Your task to perform on an android device: see sites visited before in the chrome app Image 0: 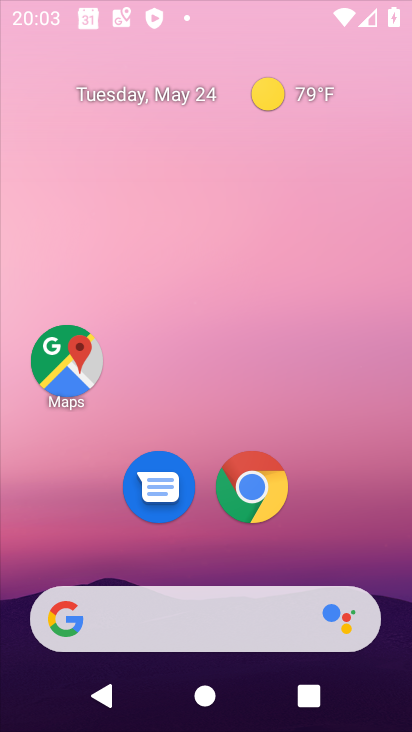
Step 0: press home button
Your task to perform on an android device: see sites visited before in the chrome app Image 1: 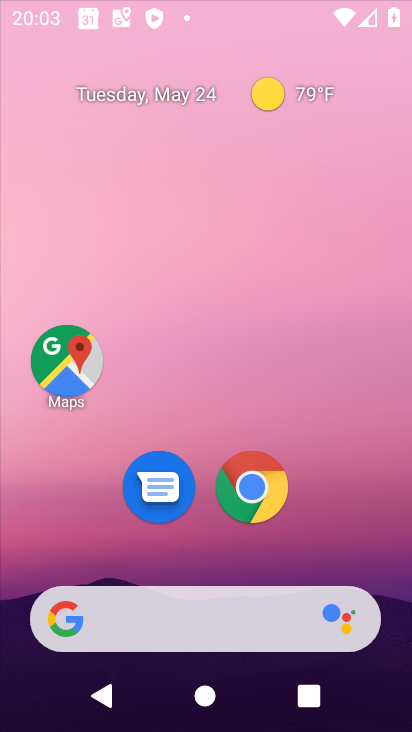
Step 1: click (231, 159)
Your task to perform on an android device: see sites visited before in the chrome app Image 2: 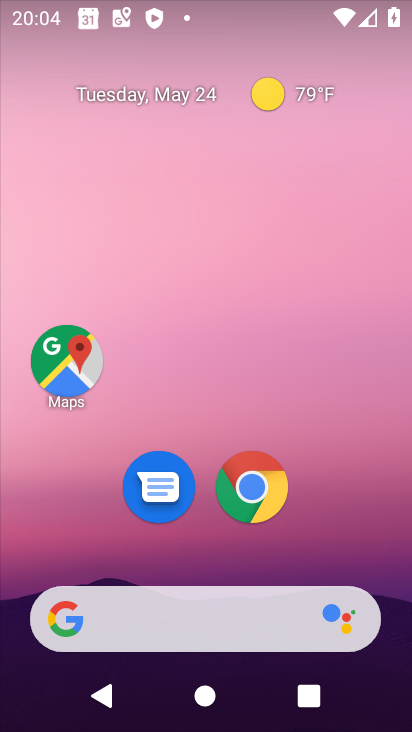
Step 2: drag from (22, 559) to (258, 183)
Your task to perform on an android device: see sites visited before in the chrome app Image 3: 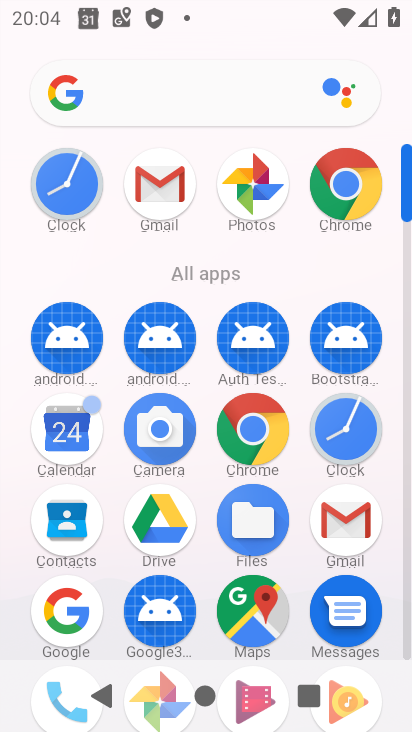
Step 3: click (245, 421)
Your task to perform on an android device: see sites visited before in the chrome app Image 4: 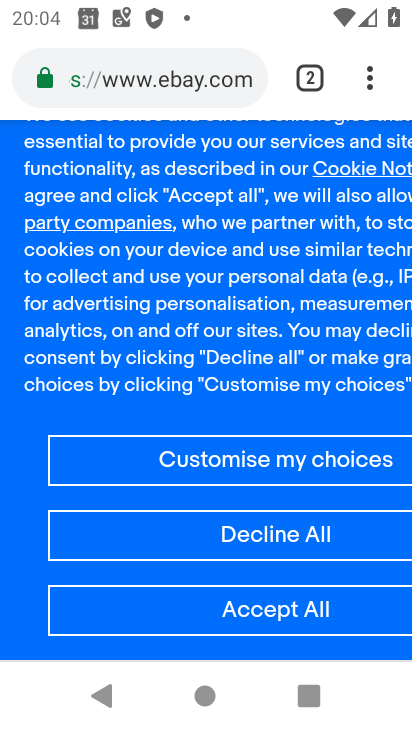
Step 4: click (374, 74)
Your task to perform on an android device: see sites visited before in the chrome app Image 5: 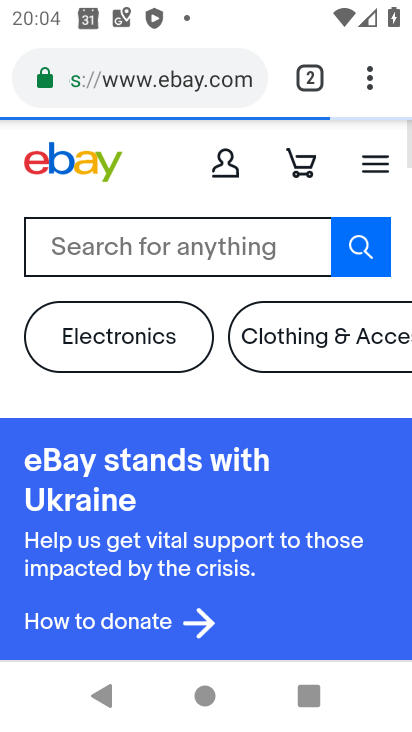
Step 5: click (360, 85)
Your task to perform on an android device: see sites visited before in the chrome app Image 6: 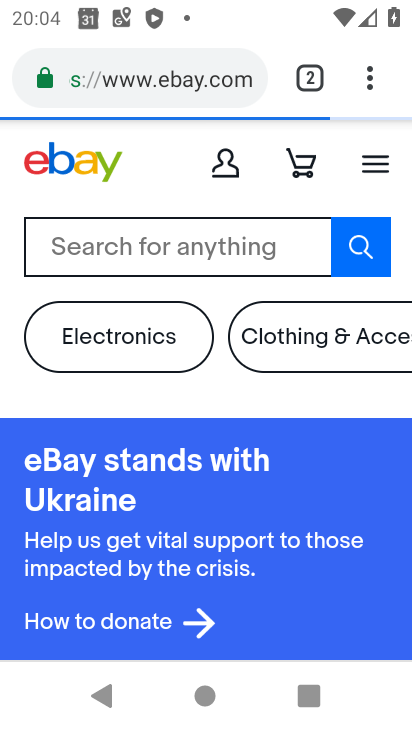
Step 6: click (377, 79)
Your task to perform on an android device: see sites visited before in the chrome app Image 7: 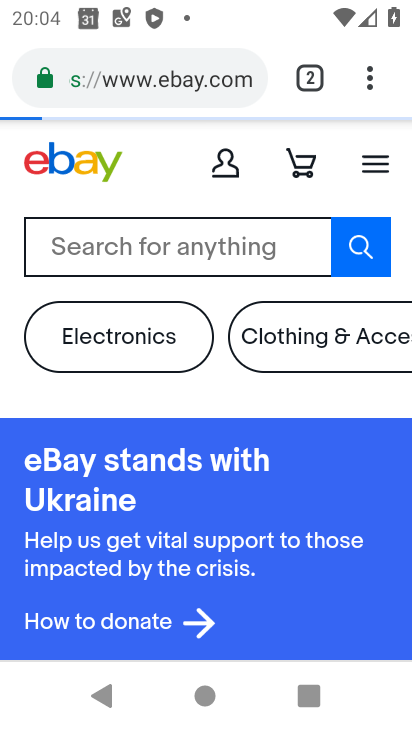
Step 7: click (376, 79)
Your task to perform on an android device: see sites visited before in the chrome app Image 8: 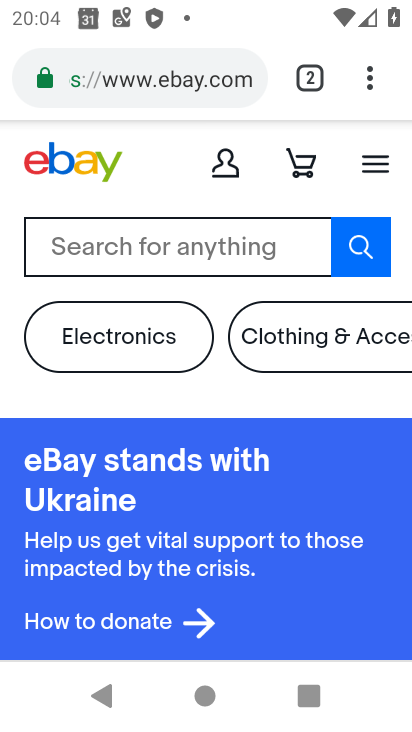
Step 8: click (368, 77)
Your task to perform on an android device: see sites visited before in the chrome app Image 9: 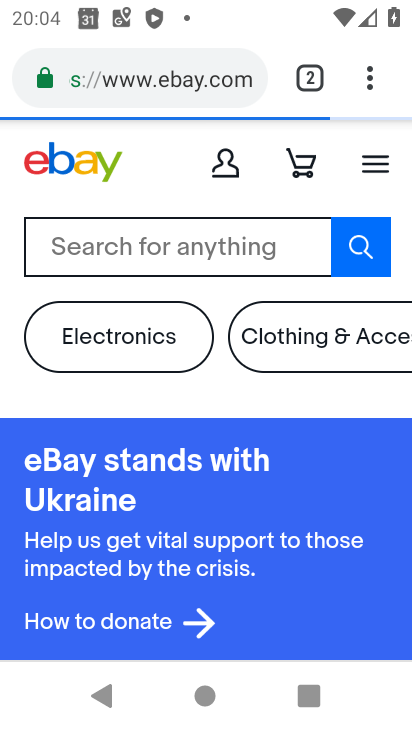
Step 9: click (379, 70)
Your task to perform on an android device: see sites visited before in the chrome app Image 10: 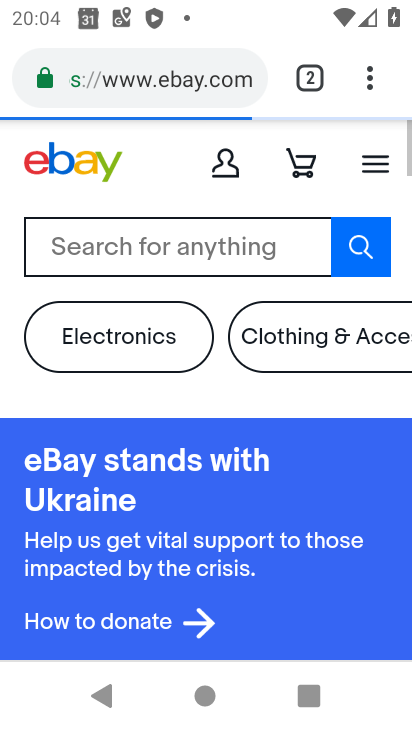
Step 10: click (370, 86)
Your task to perform on an android device: see sites visited before in the chrome app Image 11: 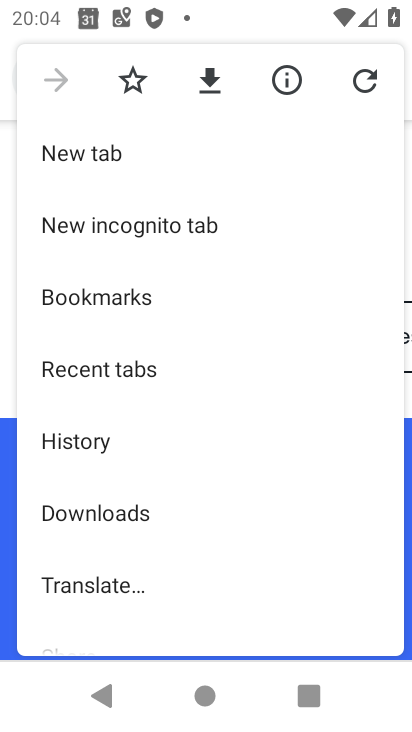
Step 11: click (118, 432)
Your task to perform on an android device: see sites visited before in the chrome app Image 12: 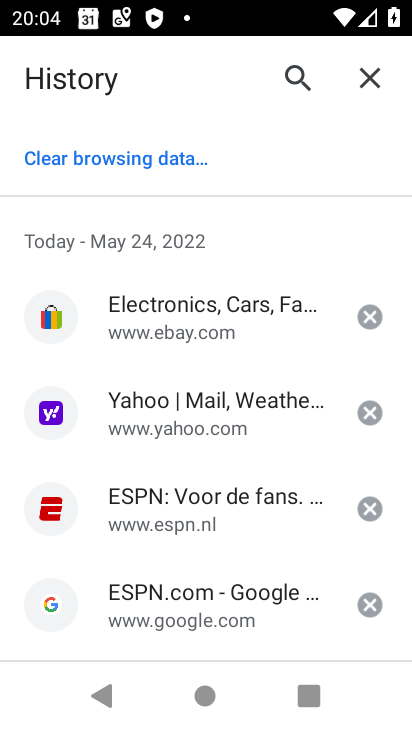
Step 12: task complete